Your task to perform on an android device: Go to Yahoo.com Image 0: 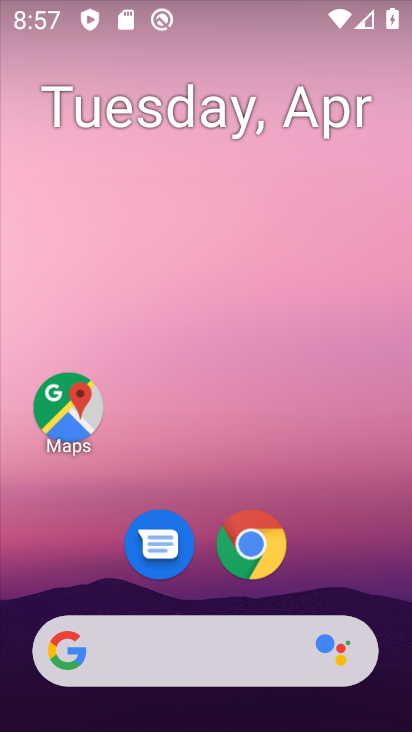
Step 0: click (251, 557)
Your task to perform on an android device: Go to Yahoo.com Image 1: 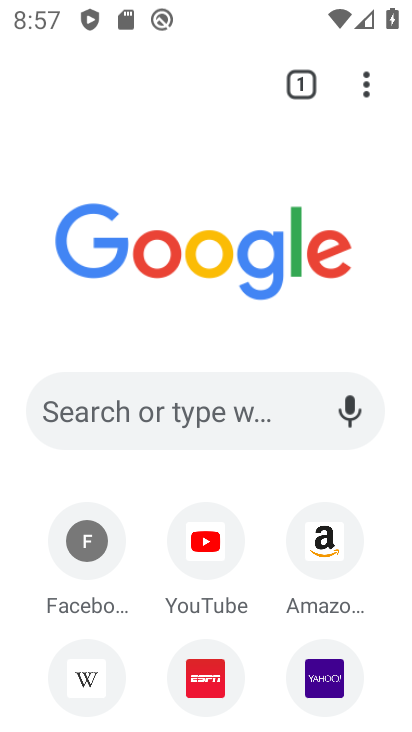
Step 1: click (151, 410)
Your task to perform on an android device: Go to Yahoo.com Image 2: 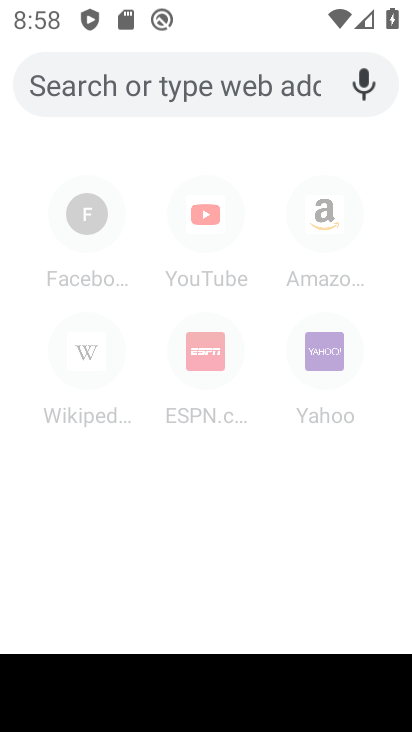
Step 2: type "yahoo.com"
Your task to perform on an android device: Go to Yahoo.com Image 3: 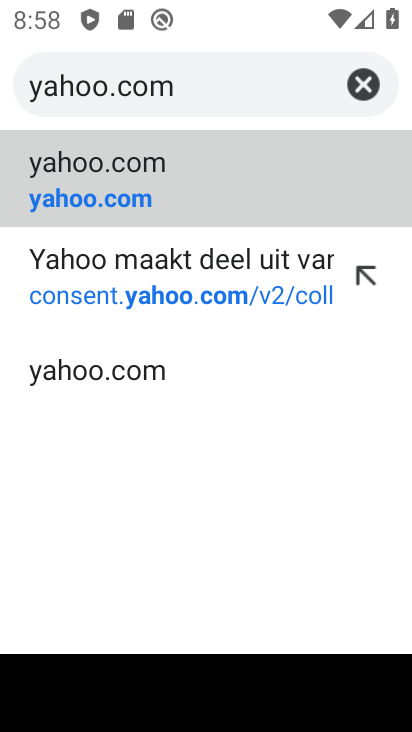
Step 3: click (154, 179)
Your task to perform on an android device: Go to Yahoo.com Image 4: 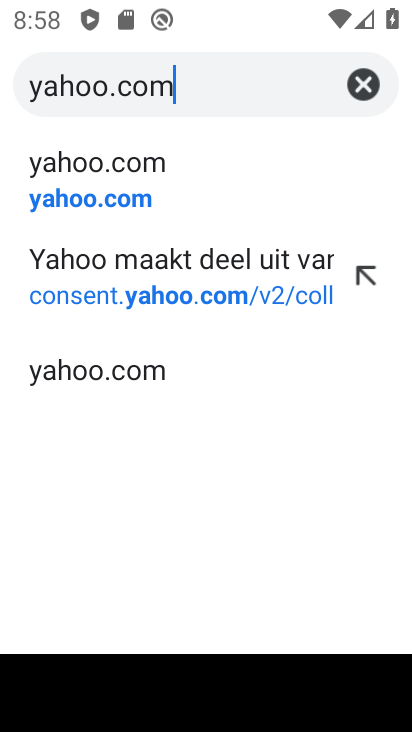
Step 4: click (115, 195)
Your task to perform on an android device: Go to Yahoo.com Image 5: 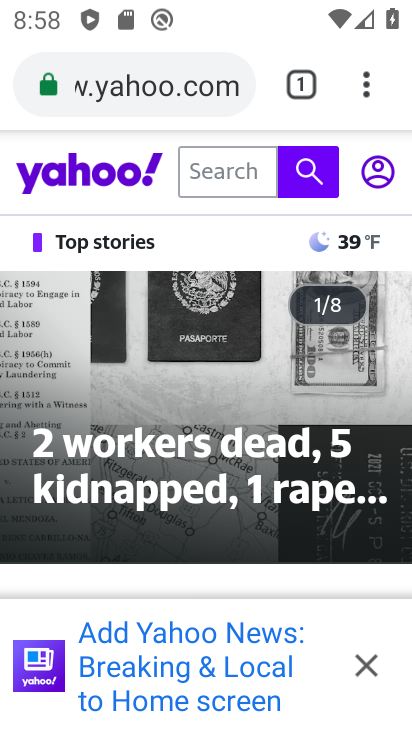
Step 5: task complete